Your task to perform on an android device: change keyboard looks Image 0: 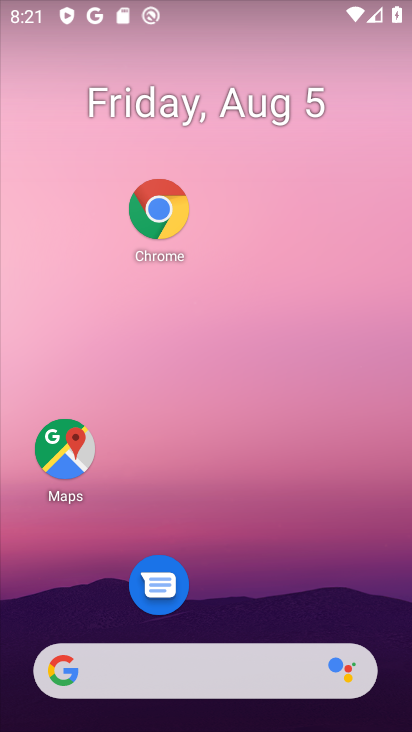
Step 0: drag from (219, 620) to (246, 1)
Your task to perform on an android device: change keyboard looks Image 1: 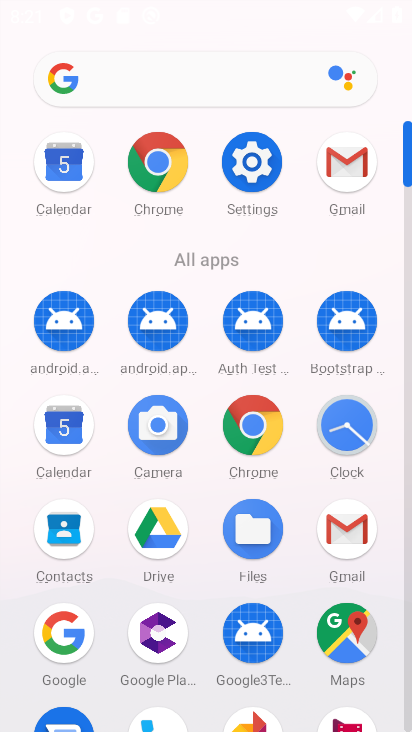
Step 1: click (246, 161)
Your task to perform on an android device: change keyboard looks Image 2: 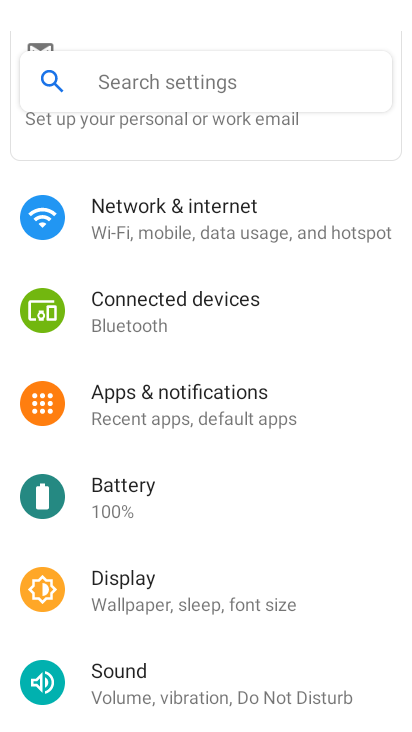
Step 2: drag from (289, 573) to (250, 33)
Your task to perform on an android device: change keyboard looks Image 3: 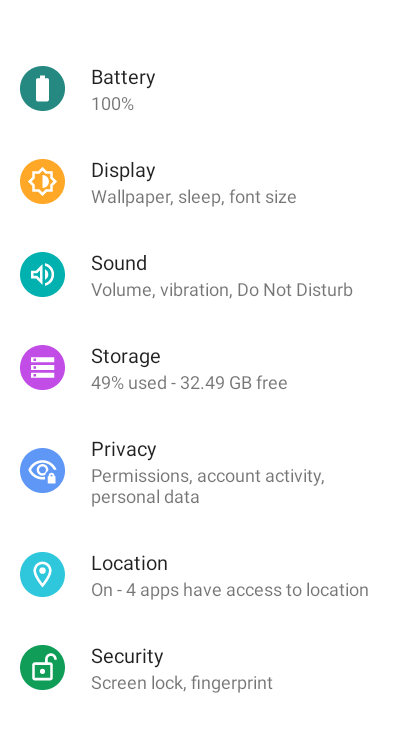
Step 3: drag from (228, 545) to (189, 24)
Your task to perform on an android device: change keyboard looks Image 4: 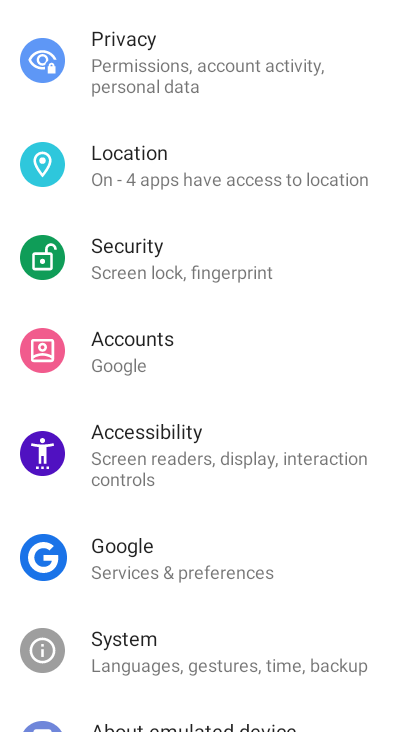
Step 4: click (117, 642)
Your task to perform on an android device: change keyboard looks Image 5: 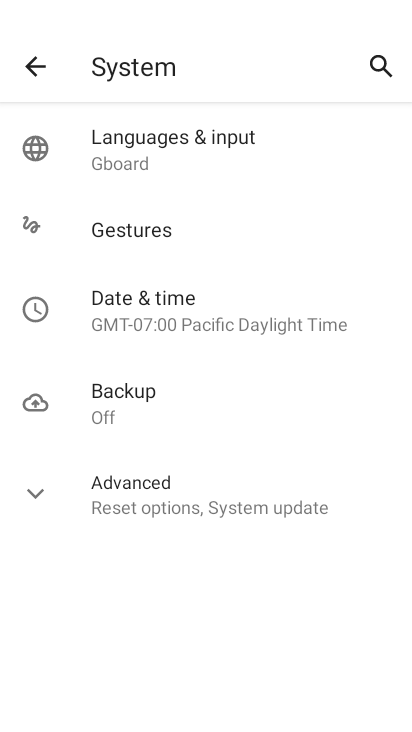
Step 5: click (186, 187)
Your task to perform on an android device: change keyboard looks Image 6: 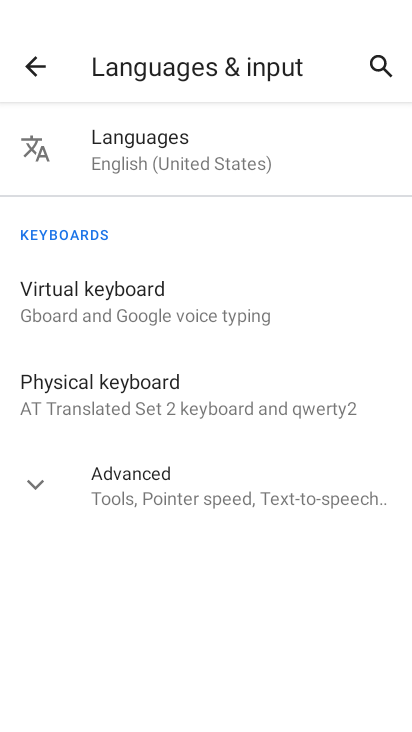
Step 6: click (160, 289)
Your task to perform on an android device: change keyboard looks Image 7: 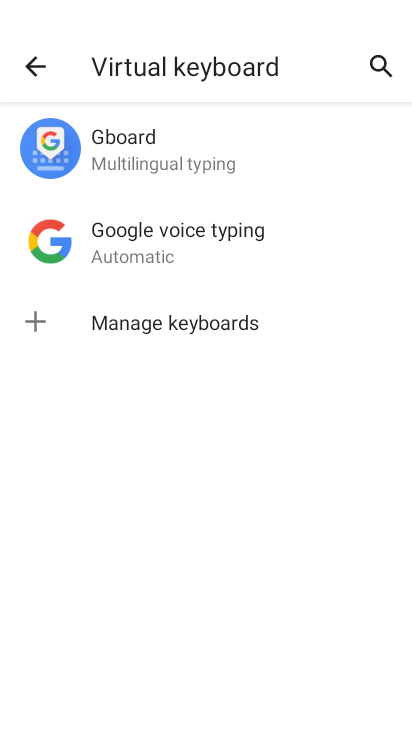
Step 7: click (126, 125)
Your task to perform on an android device: change keyboard looks Image 8: 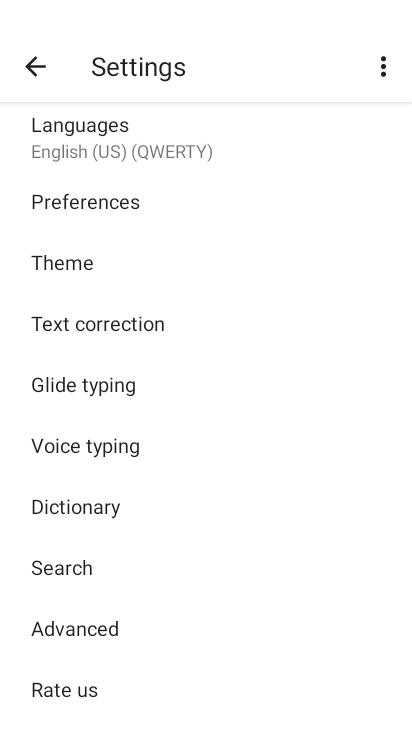
Step 8: click (79, 264)
Your task to perform on an android device: change keyboard looks Image 9: 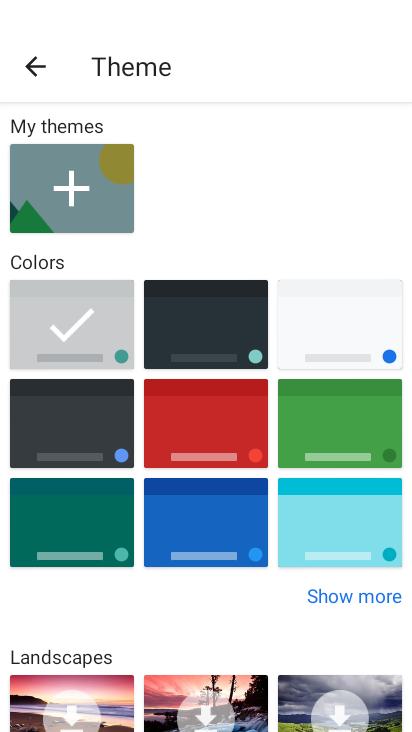
Step 9: click (171, 323)
Your task to perform on an android device: change keyboard looks Image 10: 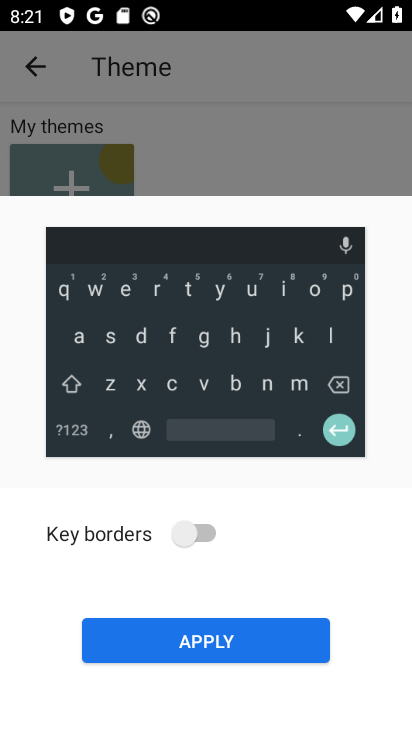
Step 10: click (264, 625)
Your task to perform on an android device: change keyboard looks Image 11: 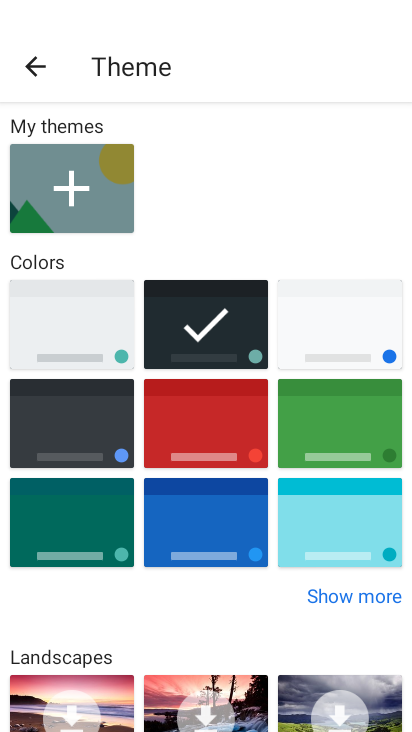
Step 11: task complete